Your task to perform on an android device: turn off improve location accuracy Image 0: 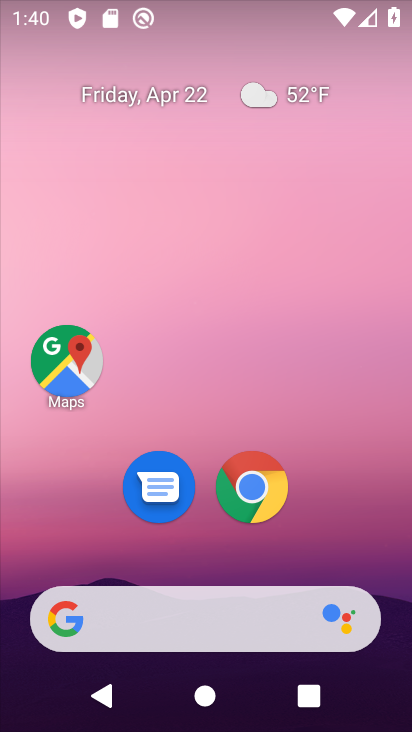
Step 0: drag from (202, 560) to (271, 64)
Your task to perform on an android device: turn off improve location accuracy Image 1: 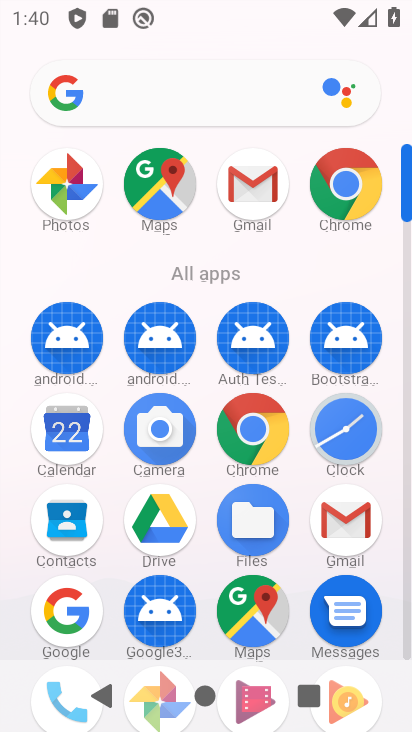
Step 1: drag from (201, 577) to (212, 220)
Your task to perform on an android device: turn off improve location accuracy Image 2: 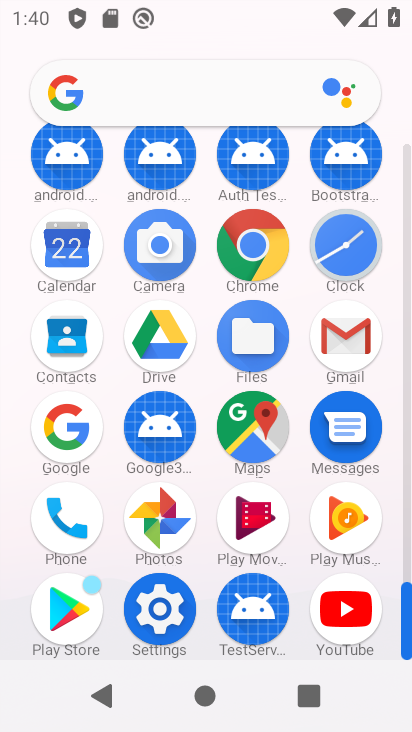
Step 2: click (167, 614)
Your task to perform on an android device: turn off improve location accuracy Image 3: 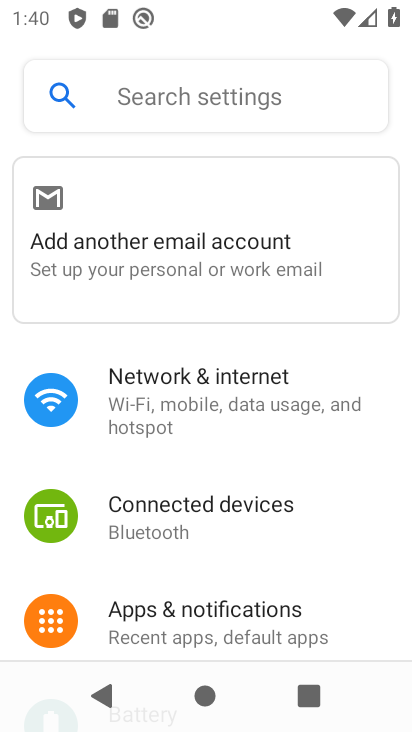
Step 3: drag from (186, 572) to (239, 183)
Your task to perform on an android device: turn off improve location accuracy Image 4: 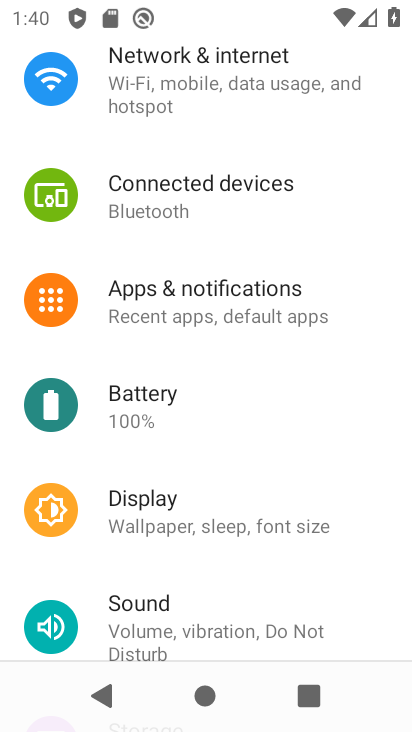
Step 4: drag from (236, 533) to (257, 142)
Your task to perform on an android device: turn off improve location accuracy Image 5: 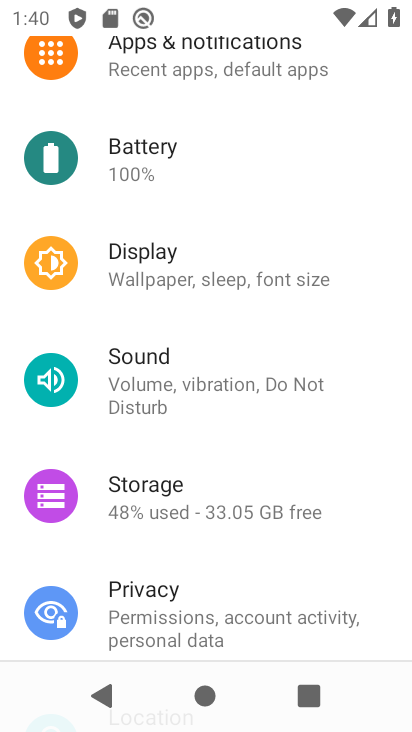
Step 5: drag from (208, 538) to (276, 228)
Your task to perform on an android device: turn off improve location accuracy Image 6: 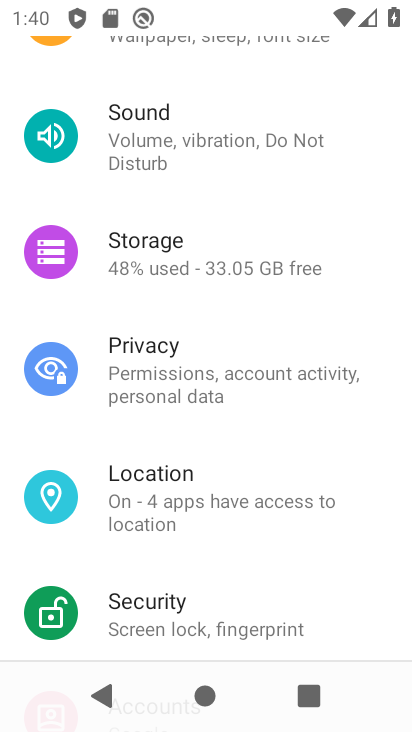
Step 6: click (146, 502)
Your task to perform on an android device: turn off improve location accuracy Image 7: 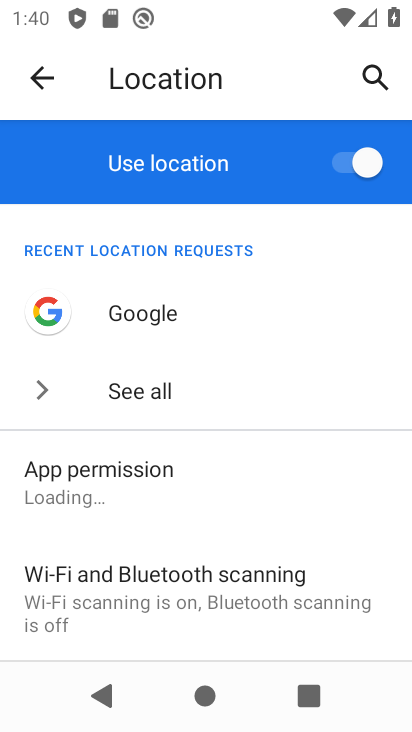
Step 7: drag from (144, 595) to (199, 283)
Your task to perform on an android device: turn off improve location accuracy Image 8: 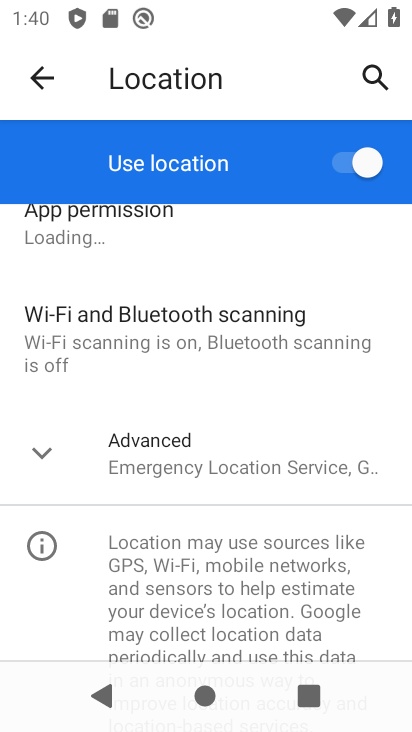
Step 8: click (153, 461)
Your task to perform on an android device: turn off improve location accuracy Image 9: 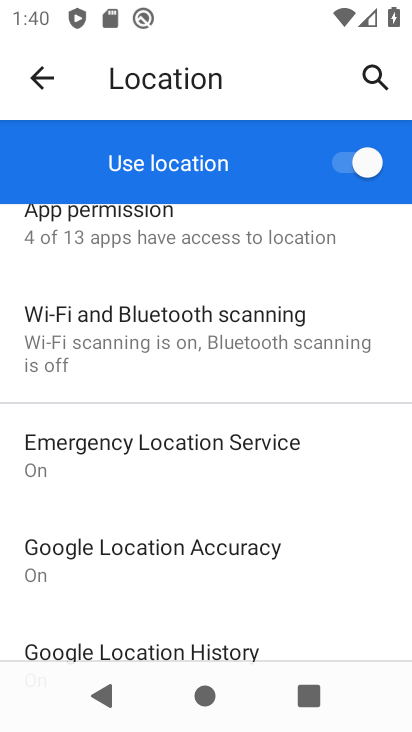
Step 9: click (154, 569)
Your task to perform on an android device: turn off improve location accuracy Image 10: 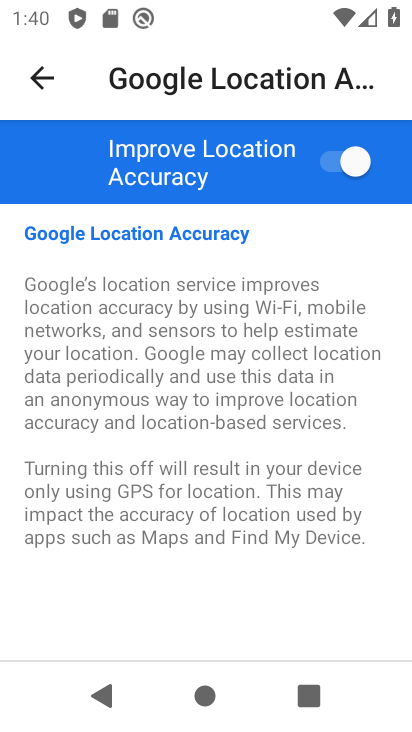
Step 10: click (332, 156)
Your task to perform on an android device: turn off improve location accuracy Image 11: 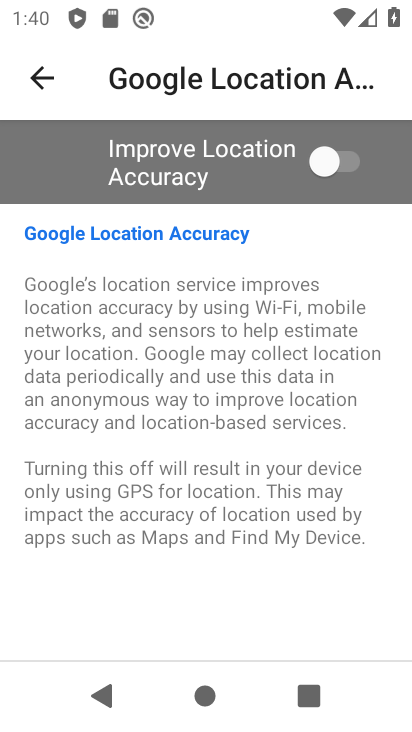
Step 11: task complete